Your task to perform on an android device: Find coffee shops on Maps Image 0: 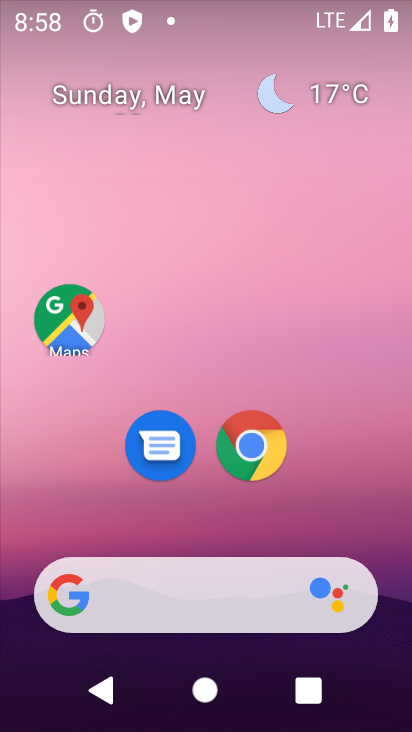
Step 0: click (217, 70)
Your task to perform on an android device: Find coffee shops on Maps Image 1: 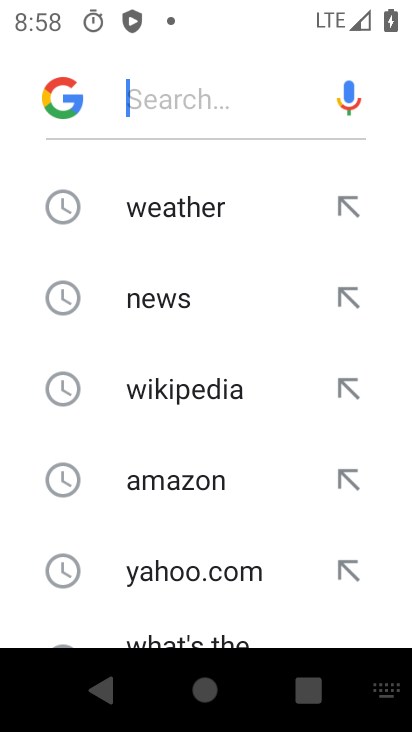
Step 1: press home button
Your task to perform on an android device: Find coffee shops on Maps Image 2: 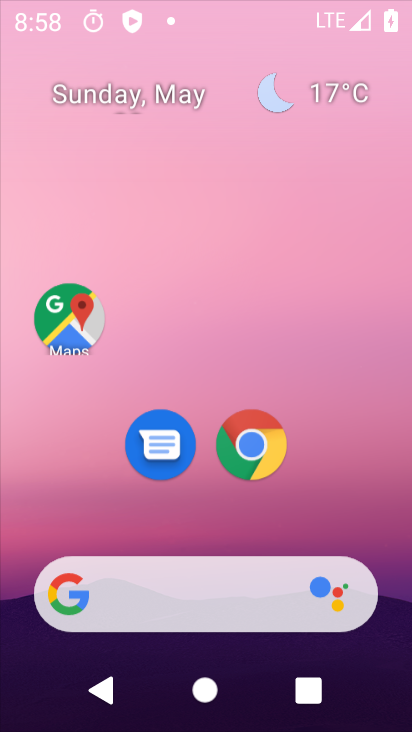
Step 2: drag from (209, 607) to (159, 6)
Your task to perform on an android device: Find coffee shops on Maps Image 3: 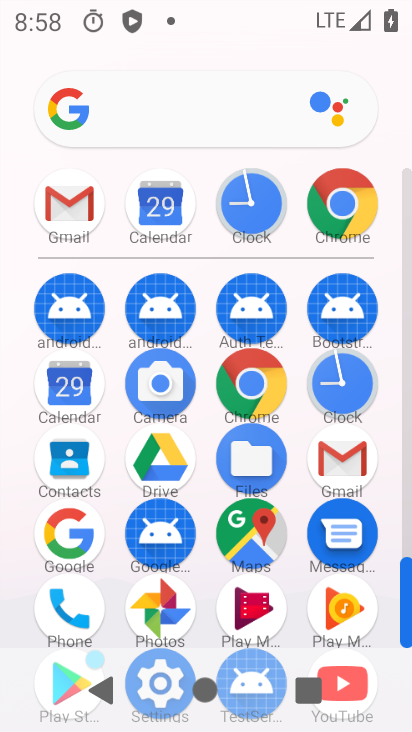
Step 3: click (246, 530)
Your task to perform on an android device: Find coffee shops on Maps Image 4: 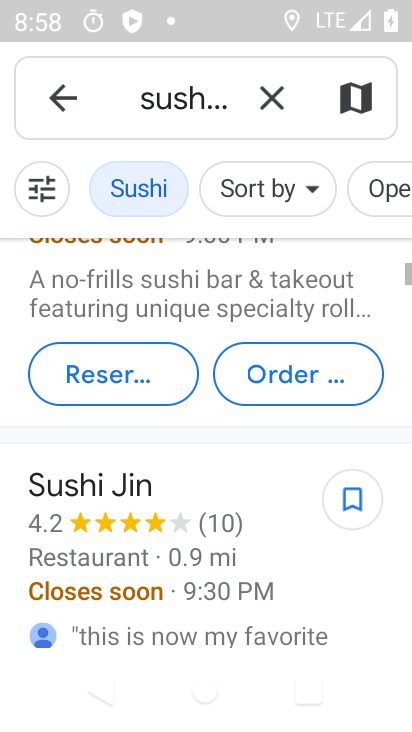
Step 4: click (267, 86)
Your task to perform on an android device: Find coffee shops on Maps Image 5: 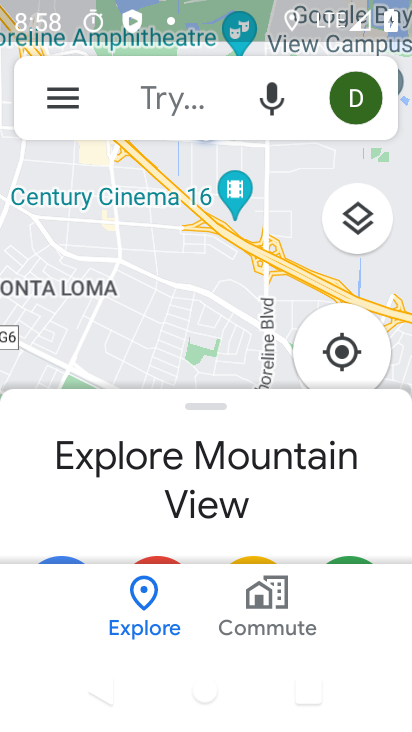
Step 5: drag from (219, 504) to (276, 45)
Your task to perform on an android device: Find coffee shops on Maps Image 6: 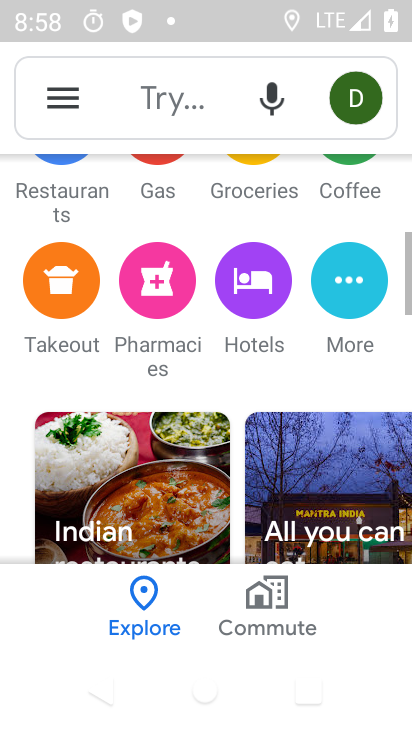
Step 6: click (145, 89)
Your task to perform on an android device: Find coffee shops on Maps Image 7: 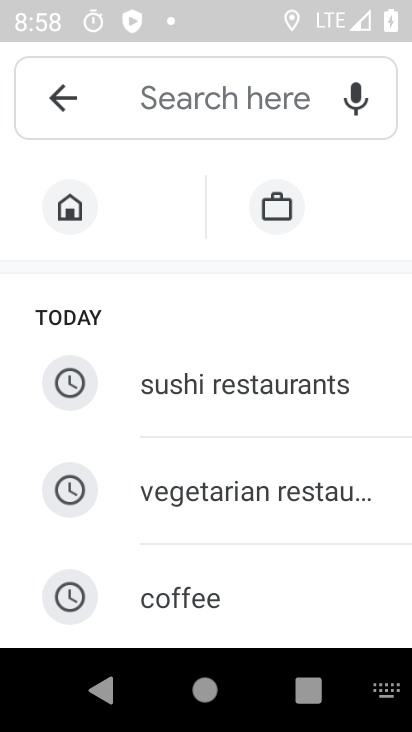
Step 7: drag from (225, 563) to (302, 198)
Your task to perform on an android device: Find coffee shops on Maps Image 8: 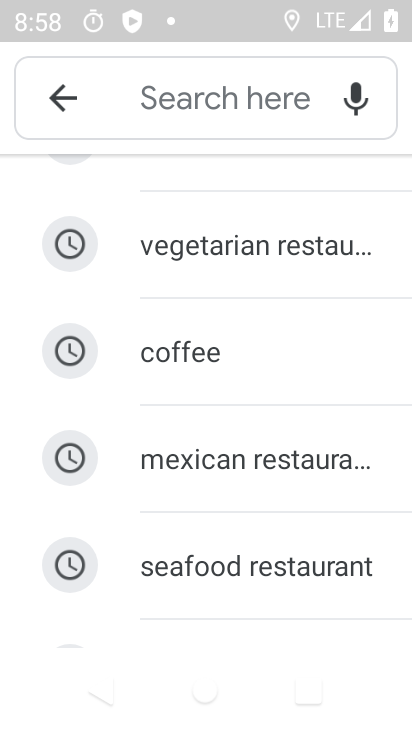
Step 8: click (217, 356)
Your task to perform on an android device: Find coffee shops on Maps Image 9: 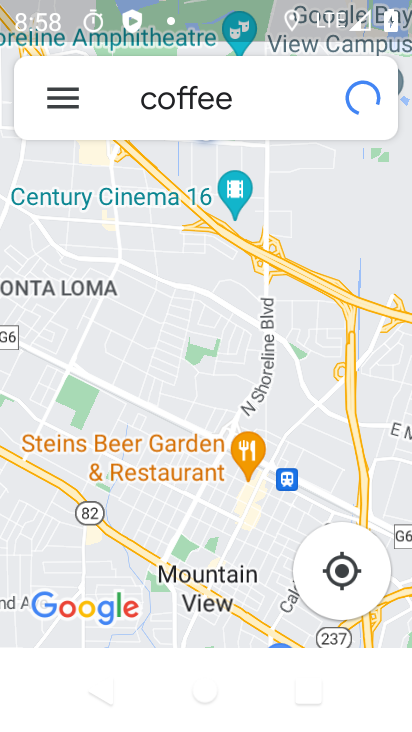
Step 9: task complete